Your task to perform on an android device: open a bookmark in the chrome app Image 0: 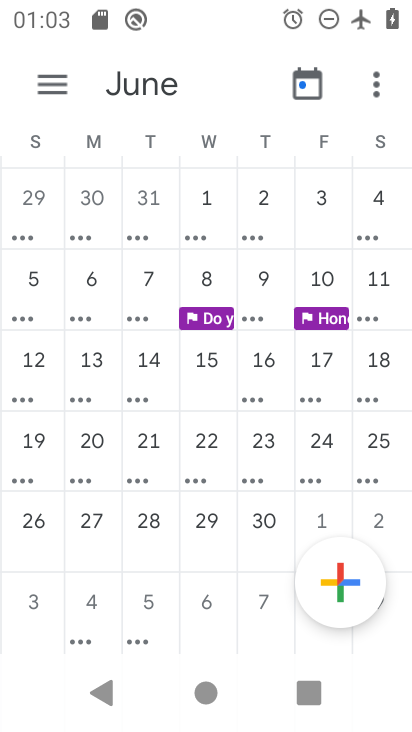
Step 0: press home button
Your task to perform on an android device: open a bookmark in the chrome app Image 1: 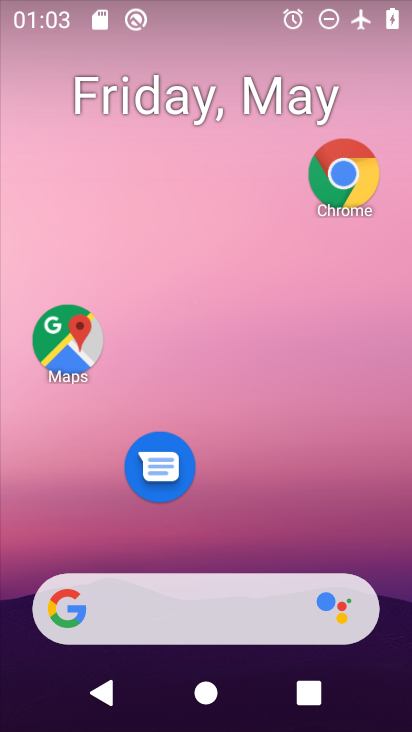
Step 1: click (343, 151)
Your task to perform on an android device: open a bookmark in the chrome app Image 2: 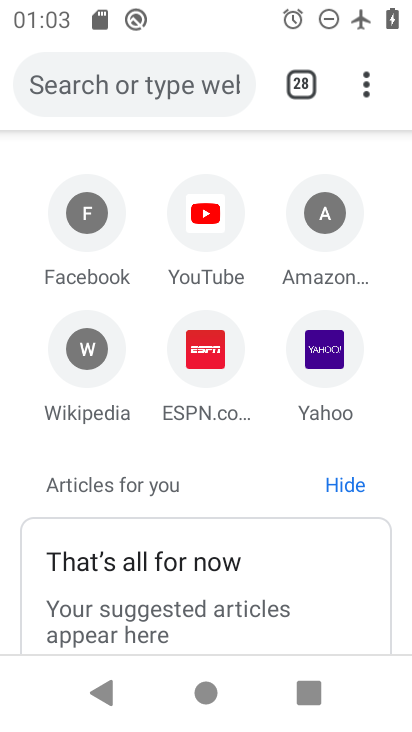
Step 2: click (376, 62)
Your task to perform on an android device: open a bookmark in the chrome app Image 3: 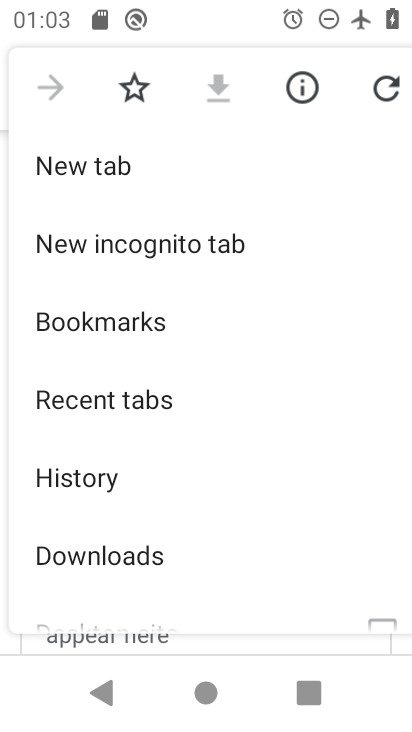
Step 3: click (124, 321)
Your task to perform on an android device: open a bookmark in the chrome app Image 4: 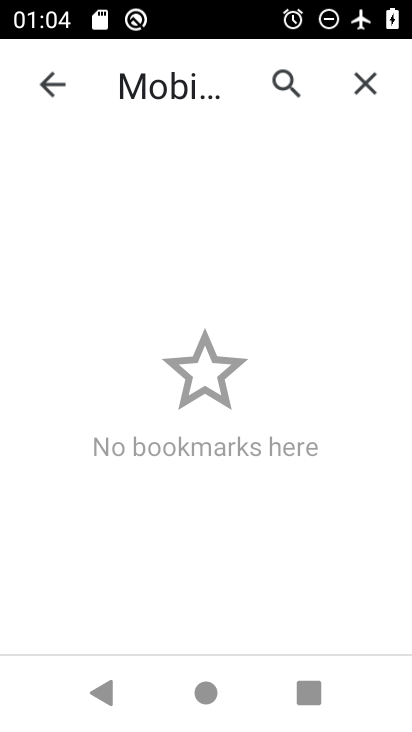
Step 4: task complete